Your task to perform on an android device: toggle airplane mode Image 0: 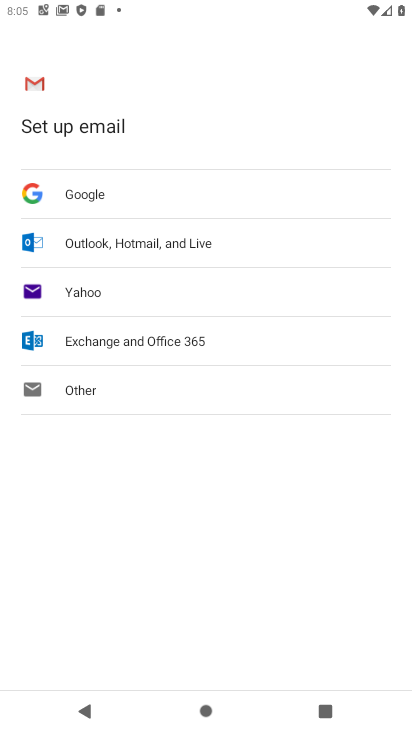
Step 0: press home button
Your task to perform on an android device: toggle airplane mode Image 1: 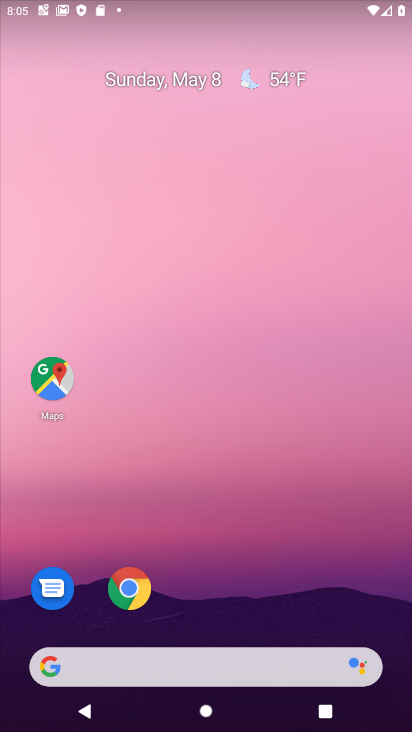
Step 1: drag from (365, 6) to (348, 412)
Your task to perform on an android device: toggle airplane mode Image 2: 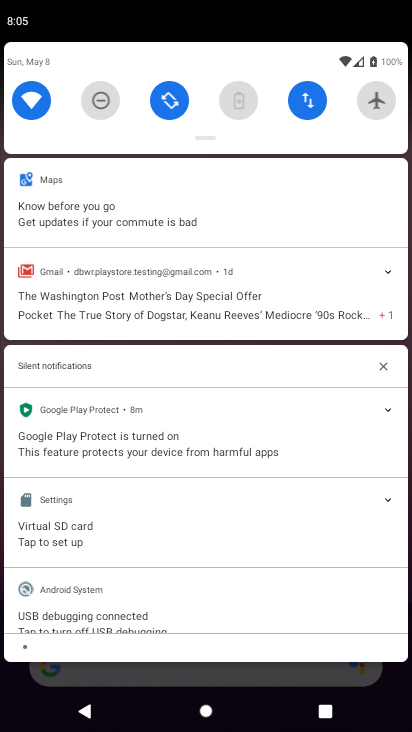
Step 2: click (373, 104)
Your task to perform on an android device: toggle airplane mode Image 3: 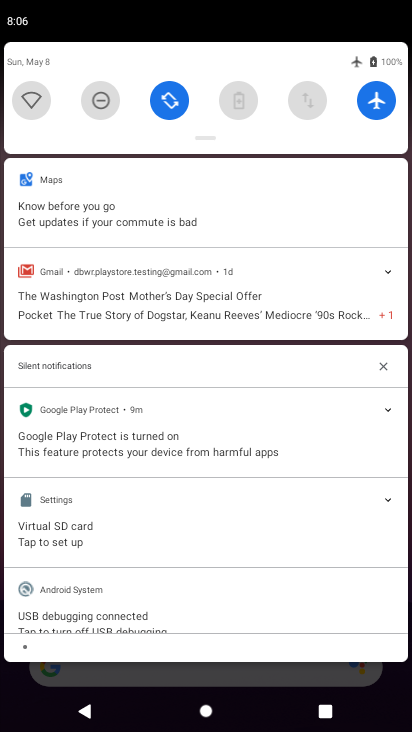
Step 3: task complete